Your task to perform on an android device: When is my next appointment? Image 0: 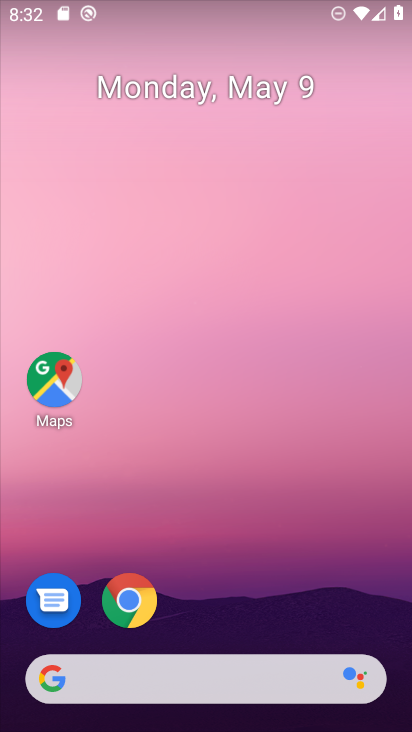
Step 0: drag from (257, 601) to (251, 18)
Your task to perform on an android device: When is my next appointment? Image 1: 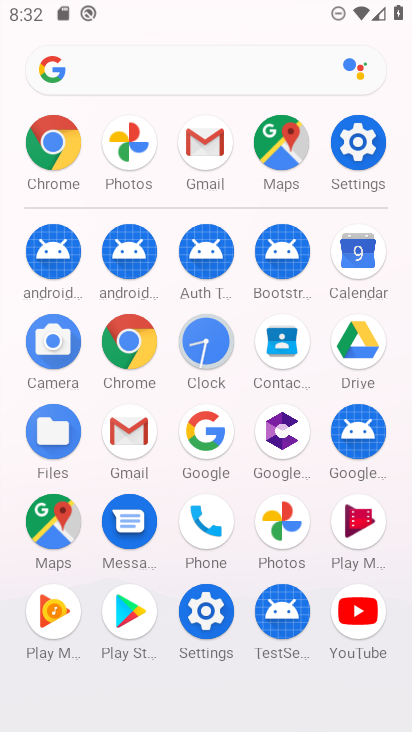
Step 1: drag from (0, 571) to (13, 309)
Your task to perform on an android device: When is my next appointment? Image 2: 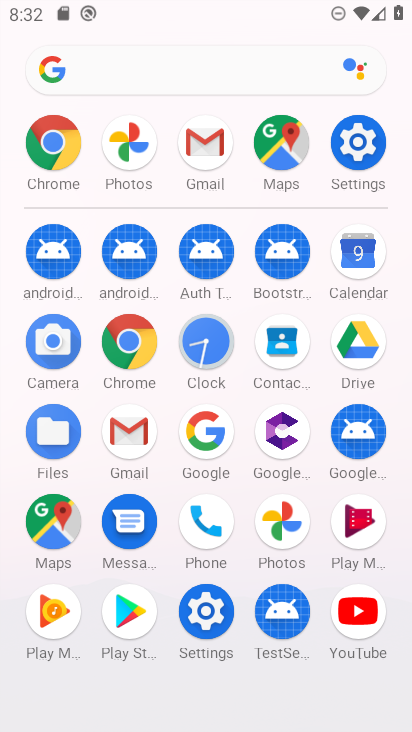
Step 2: click (352, 245)
Your task to perform on an android device: When is my next appointment? Image 3: 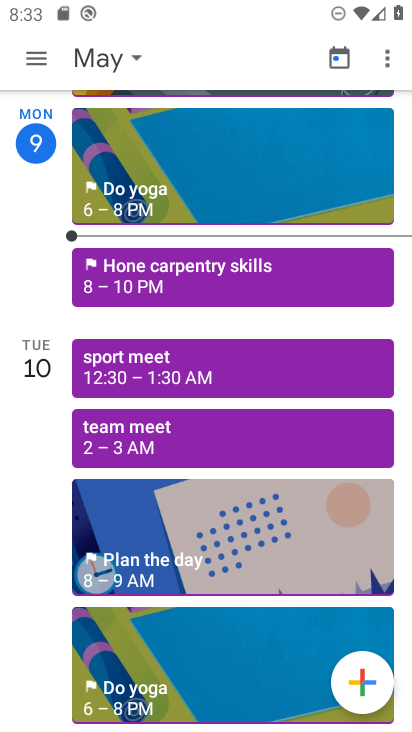
Step 3: task complete